Your task to perform on an android device: uninstall "TextNow: Call + Text Unlimited" Image 0: 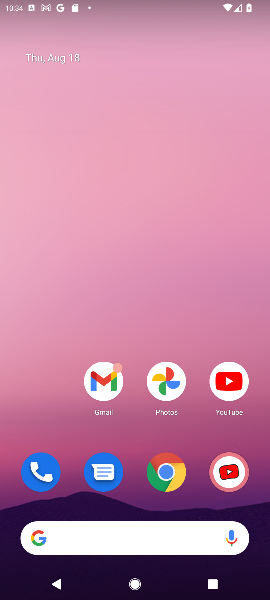
Step 0: drag from (207, 439) to (133, 121)
Your task to perform on an android device: uninstall "TextNow: Call + Text Unlimited" Image 1: 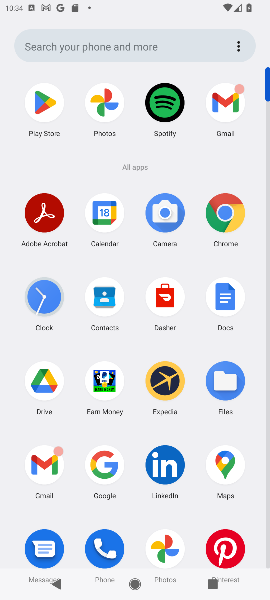
Step 1: drag from (132, 519) to (95, 336)
Your task to perform on an android device: uninstall "TextNow: Call + Text Unlimited" Image 2: 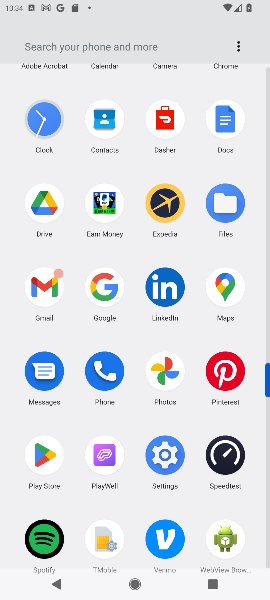
Step 2: click (41, 451)
Your task to perform on an android device: uninstall "TextNow: Call + Text Unlimited" Image 3: 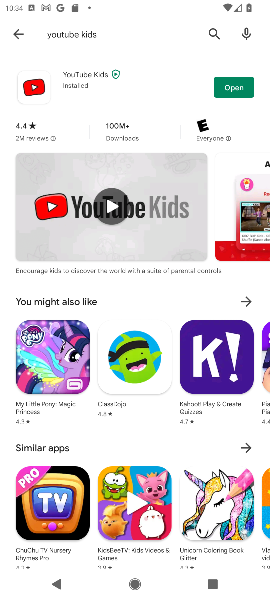
Step 3: click (216, 35)
Your task to perform on an android device: uninstall "TextNow: Call + Text Unlimited" Image 4: 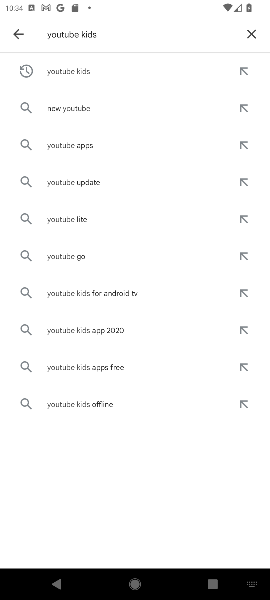
Step 4: click (253, 34)
Your task to perform on an android device: uninstall "TextNow: Call + Text Unlimited" Image 5: 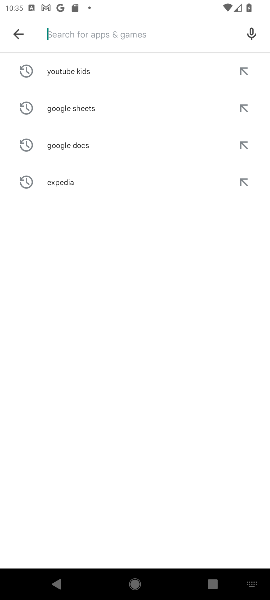
Step 5: type "textnow"
Your task to perform on an android device: uninstall "TextNow: Call + Text Unlimited" Image 6: 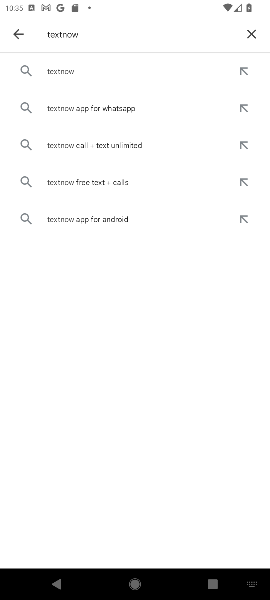
Step 6: click (110, 65)
Your task to perform on an android device: uninstall "TextNow: Call + Text Unlimited" Image 7: 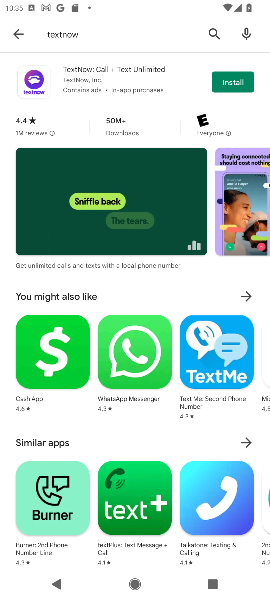
Step 7: task complete